Your task to perform on an android device: Show me popular videos on Youtube Image 0: 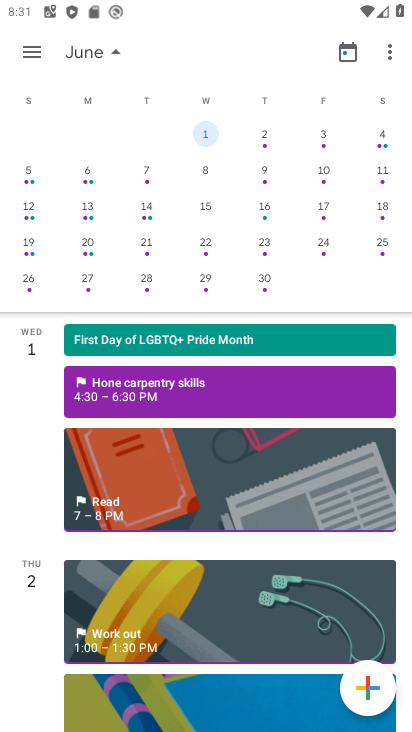
Step 0: press home button
Your task to perform on an android device: Show me popular videos on Youtube Image 1: 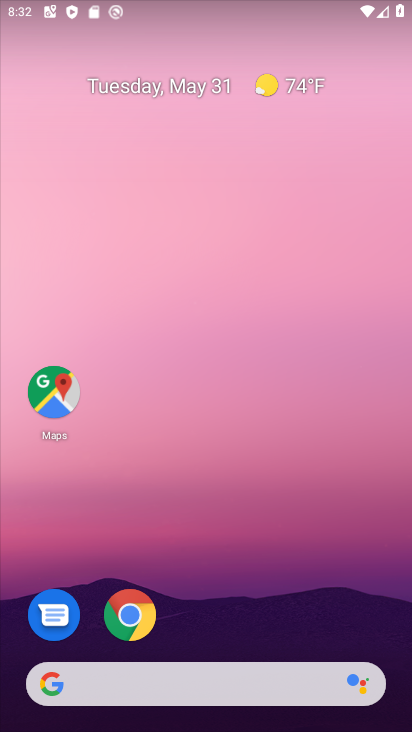
Step 1: drag from (241, 634) to (250, 160)
Your task to perform on an android device: Show me popular videos on Youtube Image 2: 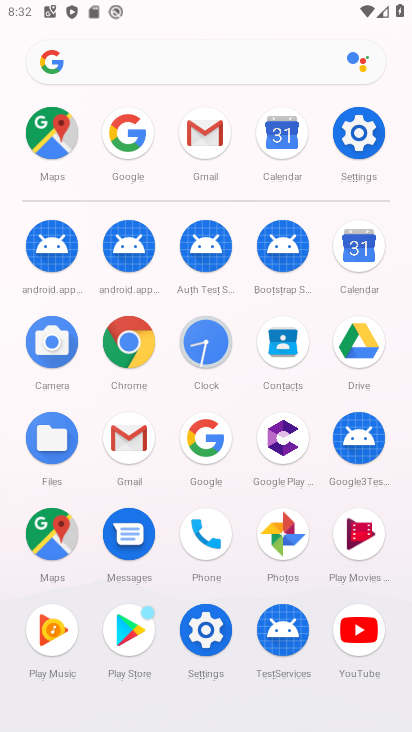
Step 2: click (354, 632)
Your task to perform on an android device: Show me popular videos on Youtube Image 3: 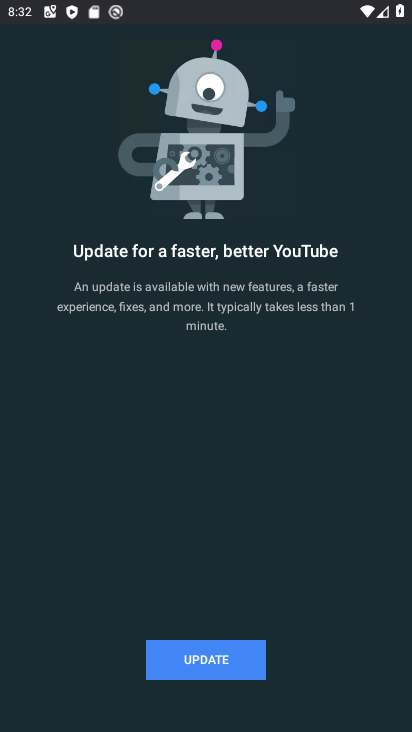
Step 3: click (212, 656)
Your task to perform on an android device: Show me popular videos on Youtube Image 4: 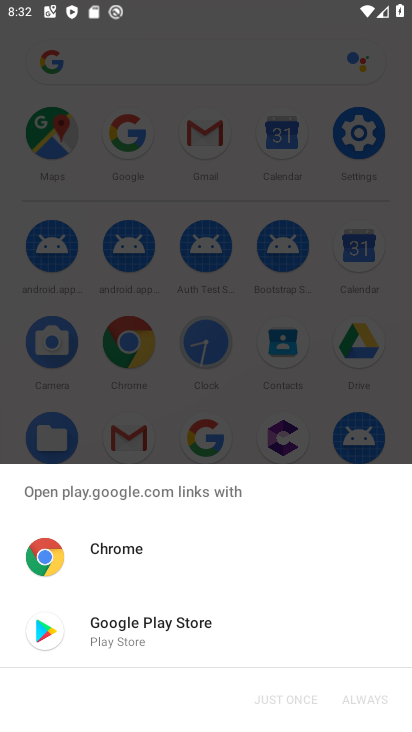
Step 4: click (194, 638)
Your task to perform on an android device: Show me popular videos on Youtube Image 5: 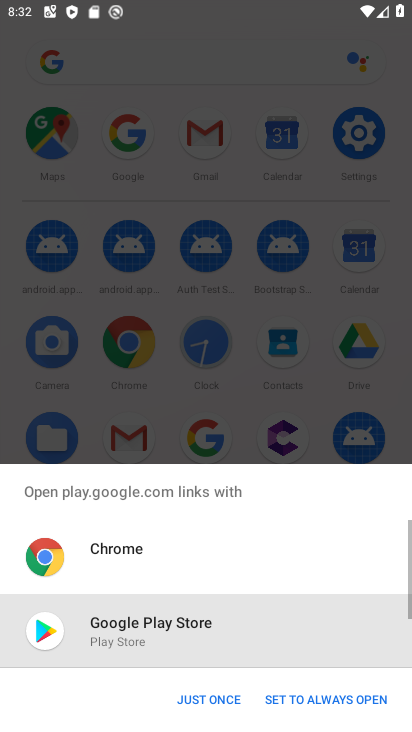
Step 5: click (203, 686)
Your task to perform on an android device: Show me popular videos on Youtube Image 6: 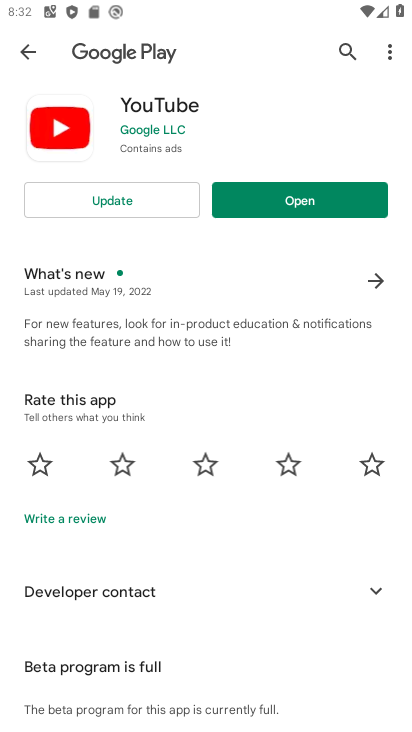
Step 6: click (159, 197)
Your task to perform on an android device: Show me popular videos on Youtube Image 7: 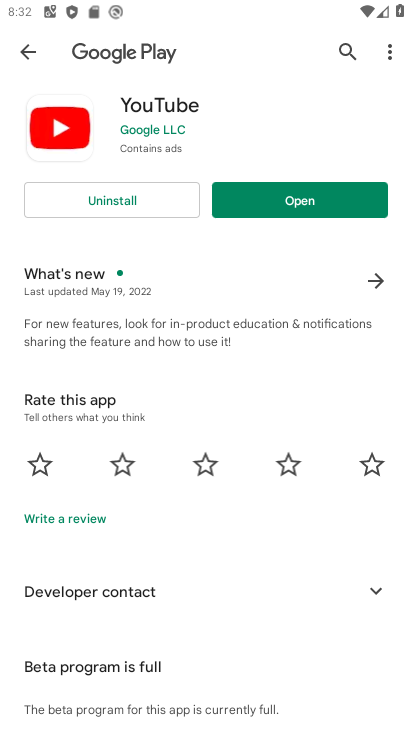
Step 7: click (299, 205)
Your task to perform on an android device: Show me popular videos on Youtube Image 8: 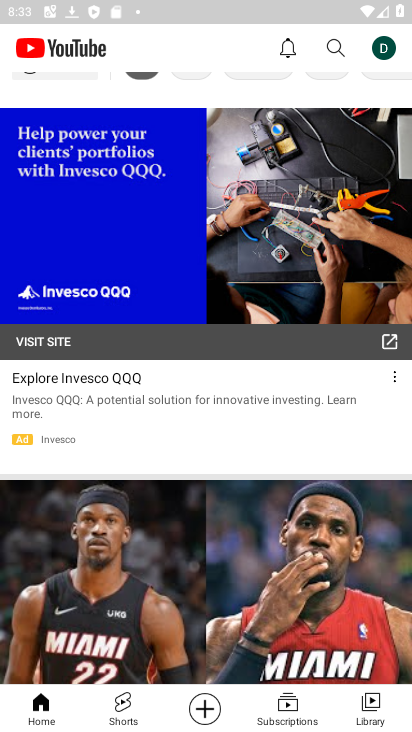
Step 8: click (340, 56)
Your task to perform on an android device: Show me popular videos on Youtube Image 9: 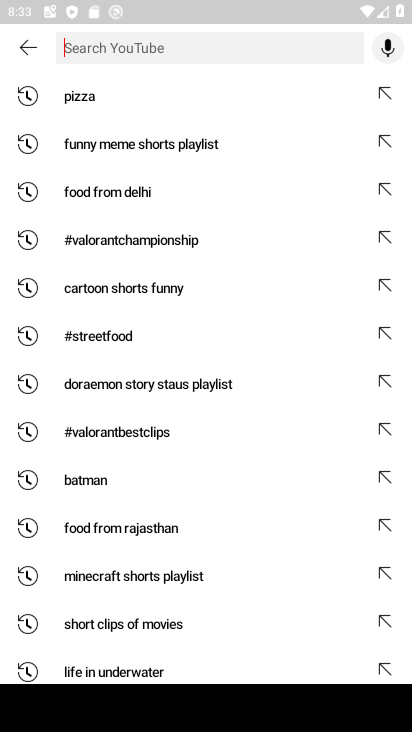
Step 9: type "popular videos"
Your task to perform on an android device: Show me popular videos on Youtube Image 10: 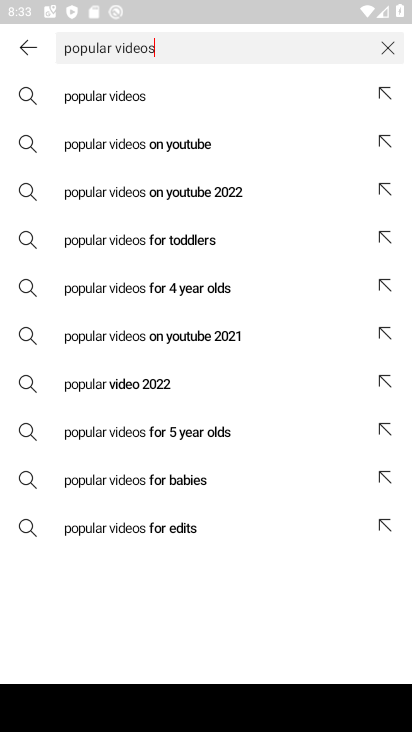
Step 10: click (187, 91)
Your task to perform on an android device: Show me popular videos on Youtube Image 11: 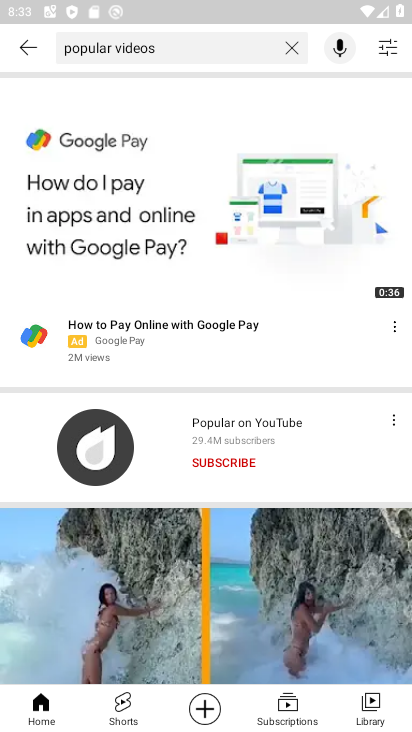
Step 11: drag from (318, 527) to (327, 407)
Your task to perform on an android device: Show me popular videos on Youtube Image 12: 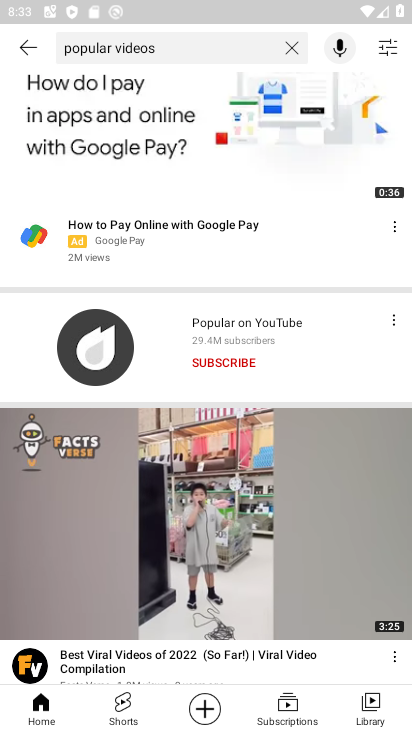
Step 12: click (239, 320)
Your task to perform on an android device: Show me popular videos on Youtube Image 13: 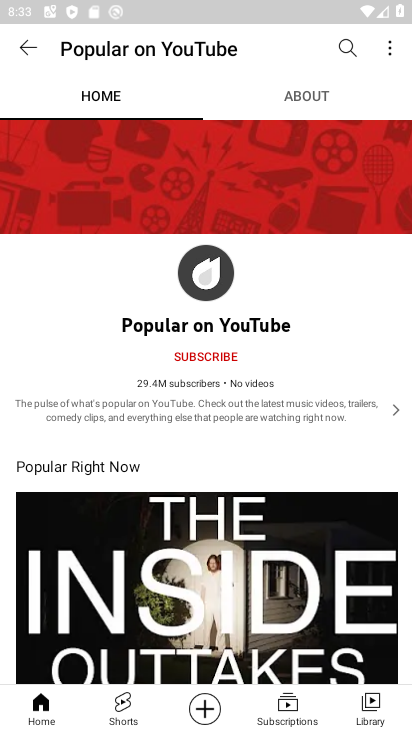
Step 13: task complete